Your task to perform on an android device: open app "TextNow: Call + Text Unlimited" (install if not already installed) and enter user name: "stoke@yahoo.com" and password: "prompted" Image 0: 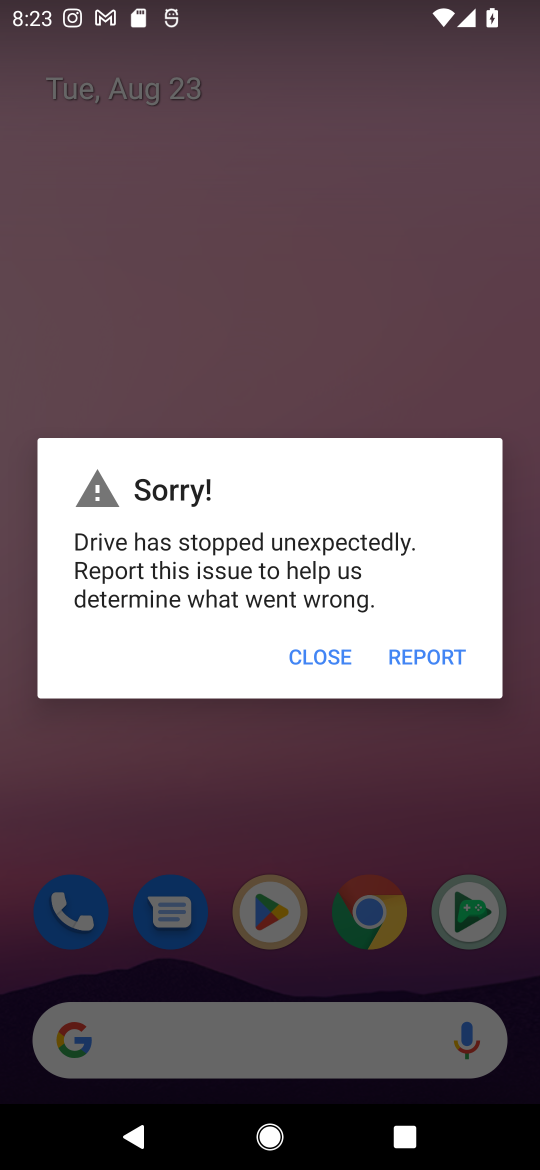
Step 0: press home button
Your task to perform on an android device: open app "TextNow: Call + Text Unlimited" (install if not already installed) and enter user name: "stoke@yahoo.com" and password: "prompted" Image 1: 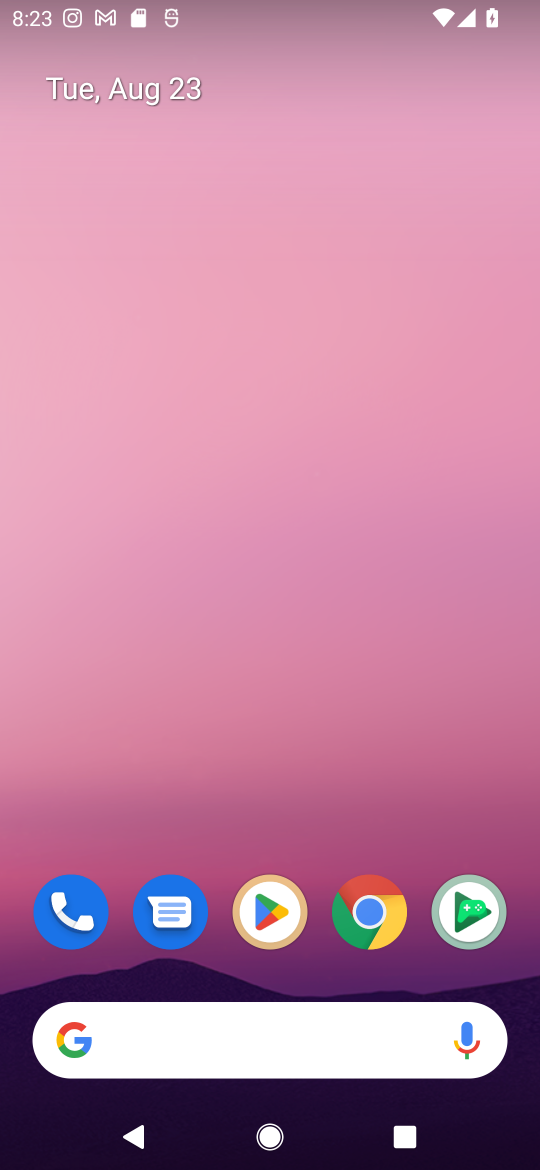
Step 1: click (273, 909)
Your task to perform on an android device: open app "TextNow: Call + Text Unlimited" (install if not already installed) and enter user name: "stoke@yahoo.com" and password: "prompted" Image 2: 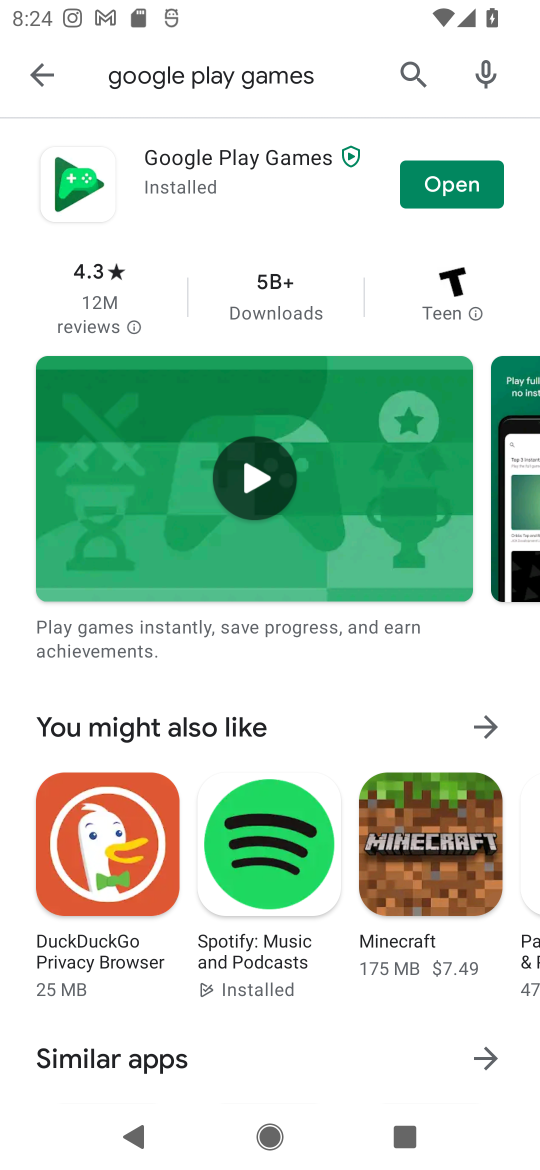
Step 2: click (405, 73)
Your task to perform on an android device: open app "TextNow: Call + Text Unlimited" (install if not already installed) and enter user name: "stoke@yahoo.com" and password: "prompted" Image 3: 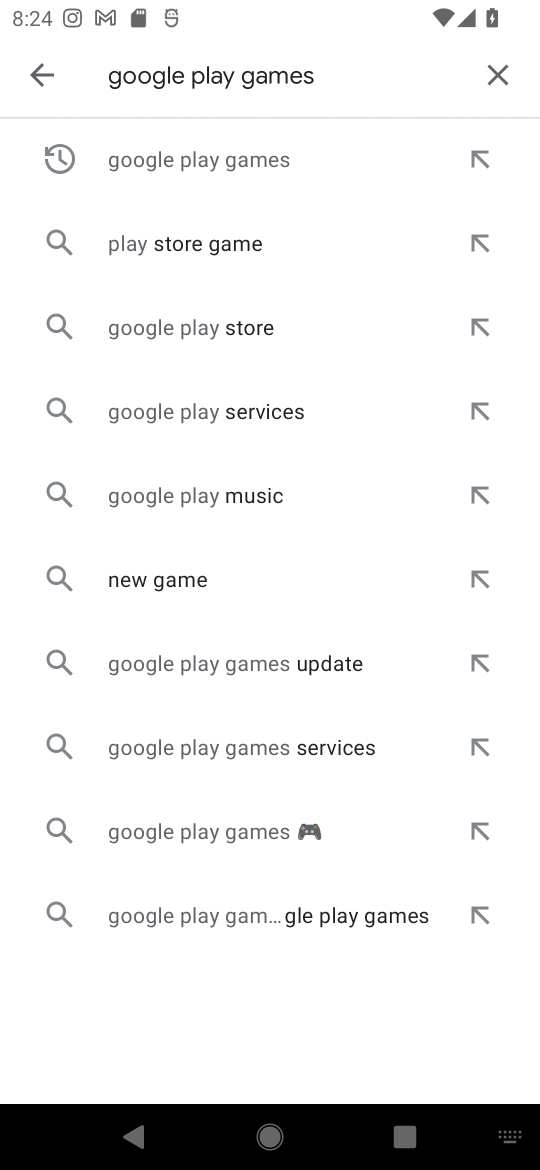
Step 3: click (494, 70)
Your task to perform on an android device: open app "TextNow: Call + Text Unlimited" (install if not already installed) and enter user name: "stoke@yahoo.com" and password: "prompted" Image 4: 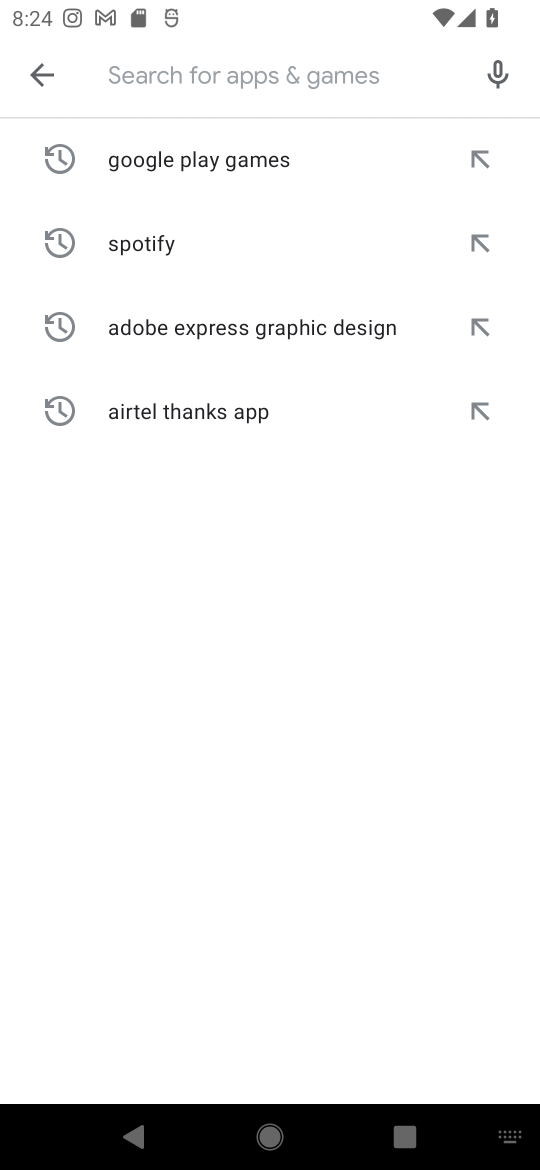
Step 4: type "TextNow: Call + Text Unlimited"
Your task to perform on an android device: open app "TextNow: Call + Text Unlimited" (install if not already installed) and enter user name: "stoke@yahoo.com" and password: "prompted" Image 5: 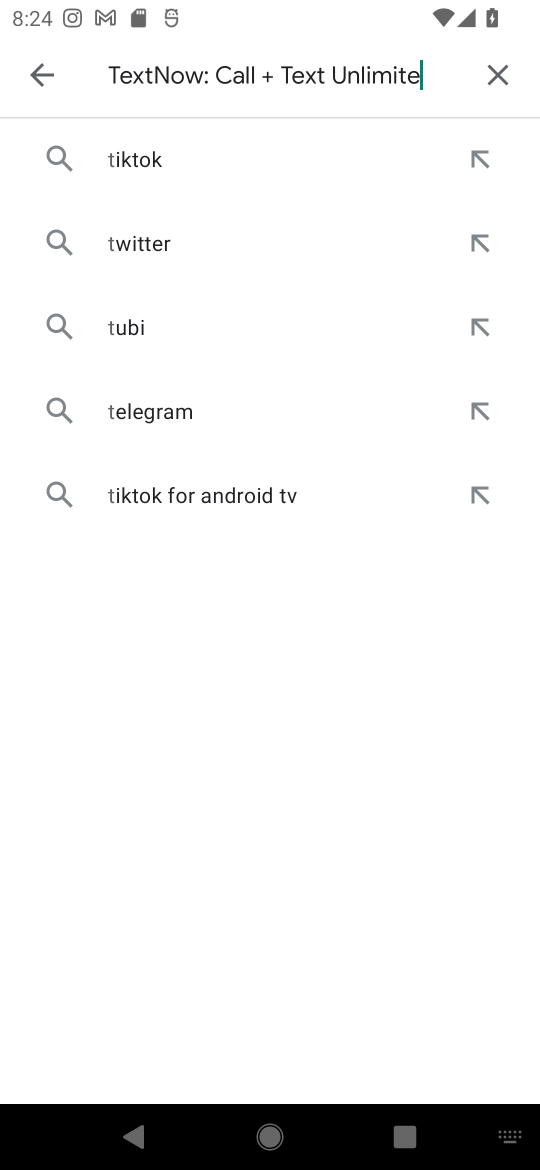
Step 5: type ""
Your task to perform on an android device: open app "TextNow: Call + Text Unlimited" (install if not already installed) and enter user name: "stoke@yahoo.com" and password: "prompted" Image 6: 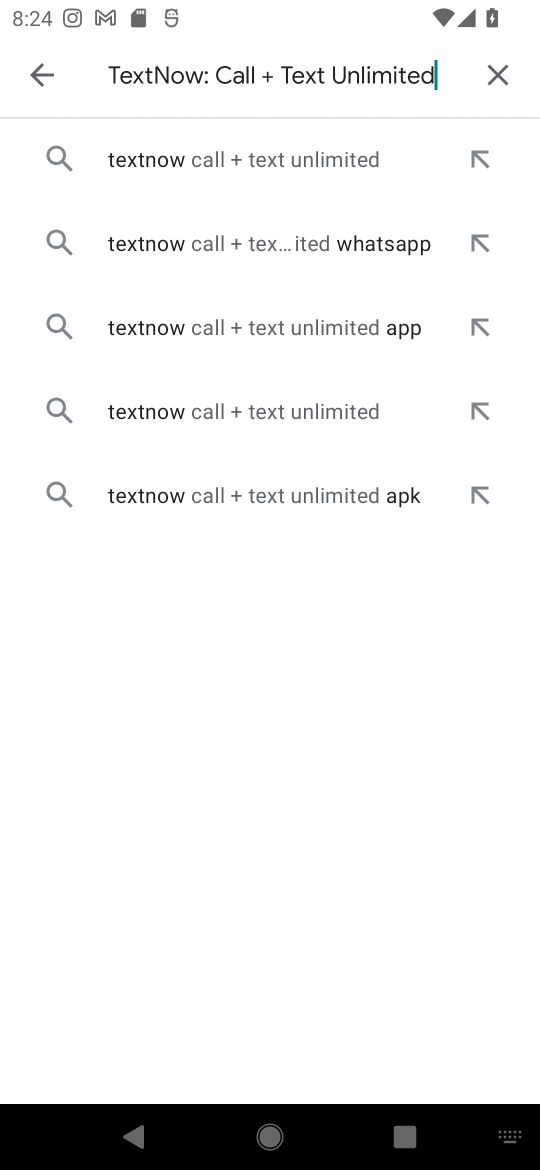
Step 6: click (336, 158)
Your task to perform on an android device: open app "TextNow: Call + Text Unlimited" (install if not already installed) and enter user name: "stoke@yahoo.com" and password: "prompted" Image 7: 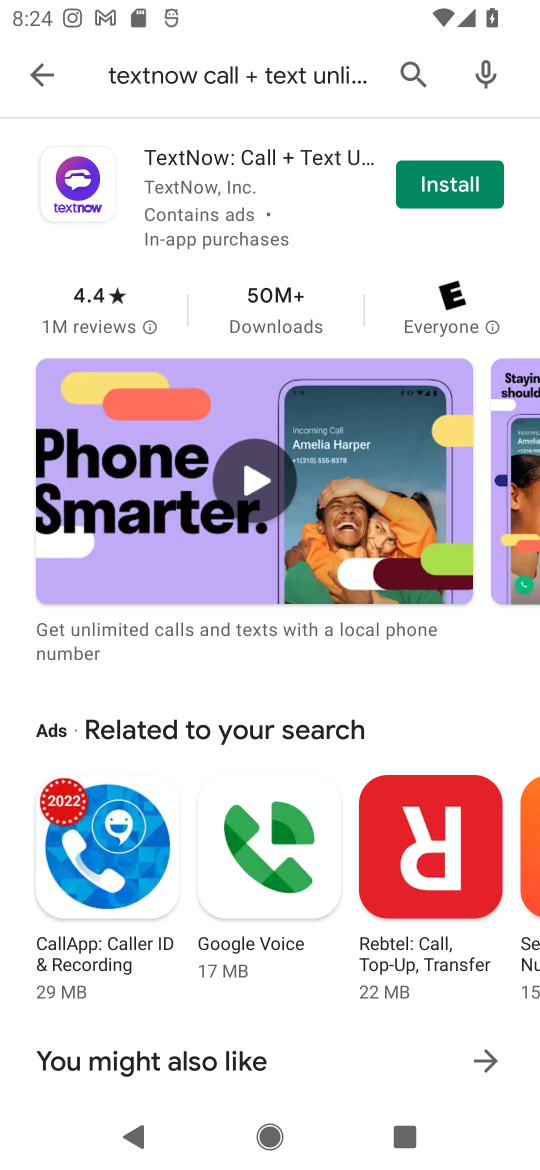
Step 7: click (451, 185)
Your task to perform on an android device: open app "TextNow: Call + Text Unlimited" (install if not already installed) and enter user name: "stoke@yahoo.com" and password: "prompted" Image 8: 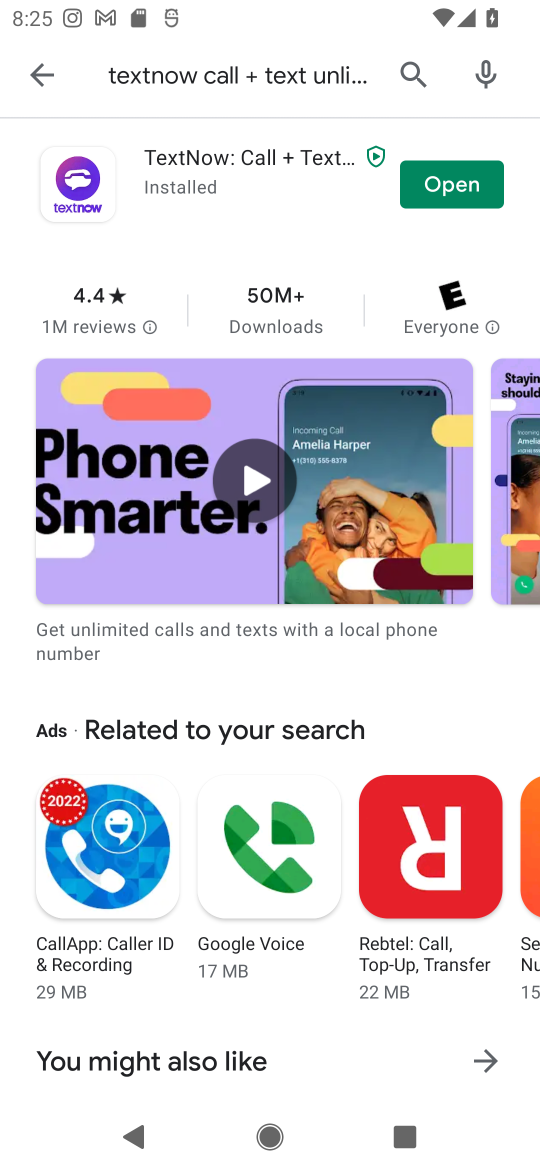
Step 8: click (448, 188)
Your task to perform on an android device: open app "TextNow: Call + Text Unlimited" (install if not already installed) and enter user name: "stoke@yahoo.com" and password: "prompted" Image 9: 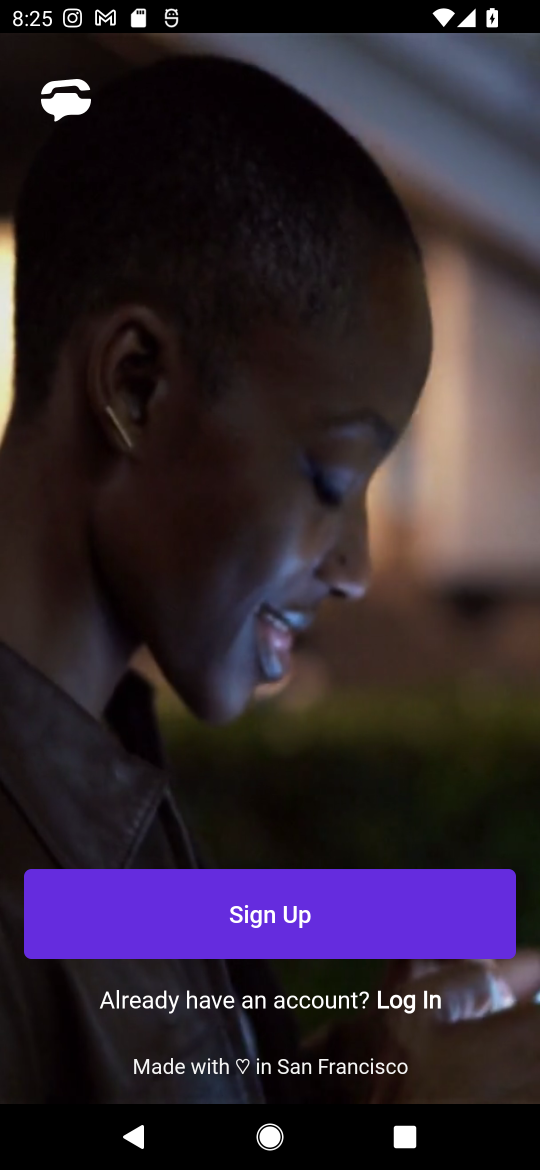
Step 9: click (271, 922)
Your task to perform on an android device: open app "TextNow: Call + Text Unlimited" (install if not already installed) and enter user name: "stoke@yahoo.com" and password: "prompted" Image 10: 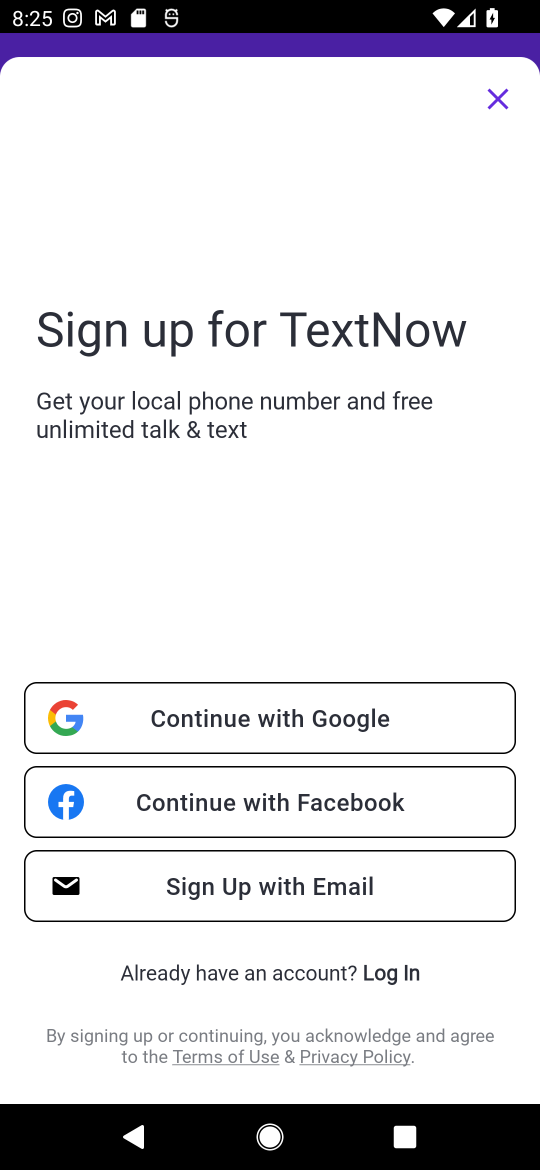
Step 10: click (350, 887)
Your task to perform on an android device: open app "TextNow: Call + Text Unlimited" (install if not already installed) and enter user name: "stoke@yahoo.com" and password: "prompted" Image 11: 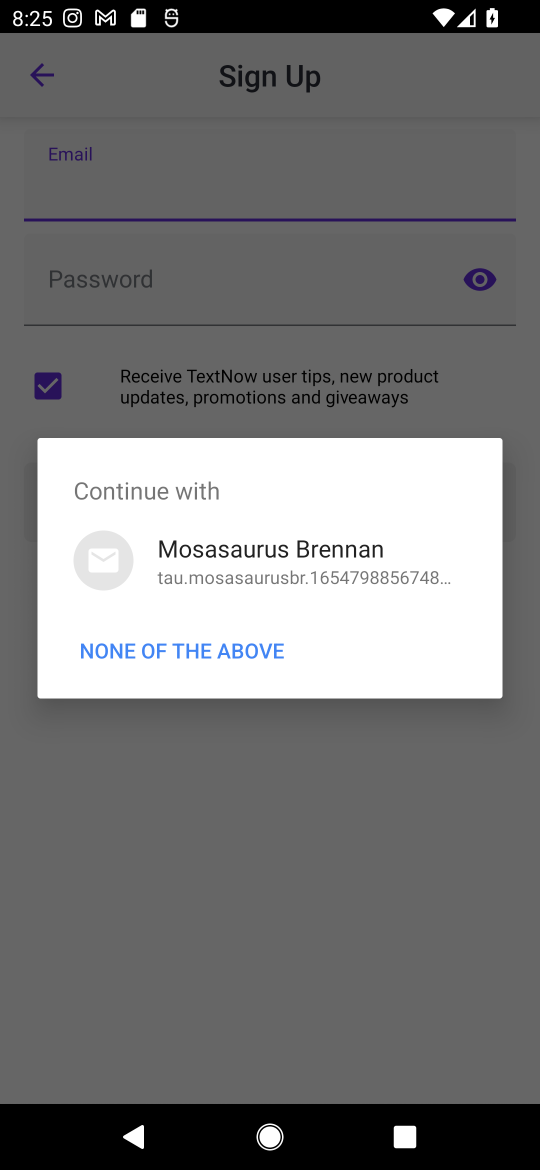
Step 11: click (206, 647)
Your task to perform on an android device: open app "TextNow: Call + Text Unlimited" (install if not already installed) and enter user name: "stoke@yahoo.com" and password: "prompted" Image 12: 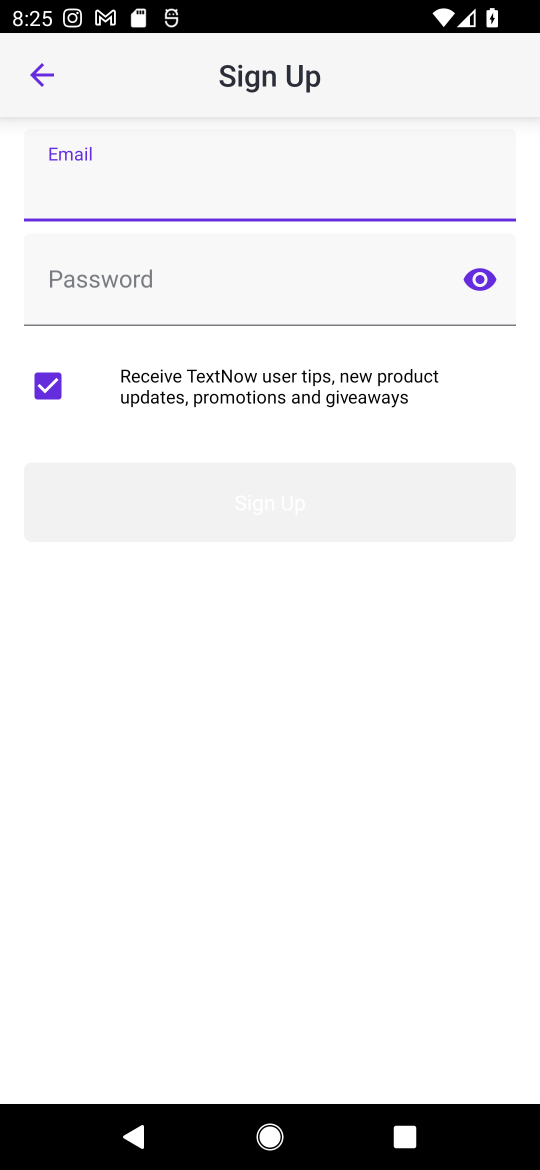
Step 12: type "stoke@yahoo.com"
Your task to perform on an android device: open app "TextNow: Call + Text Unlimited" (install if not already installed) and enter user name: "stoke@yahoo.com" and password: "prompted" Image 13: 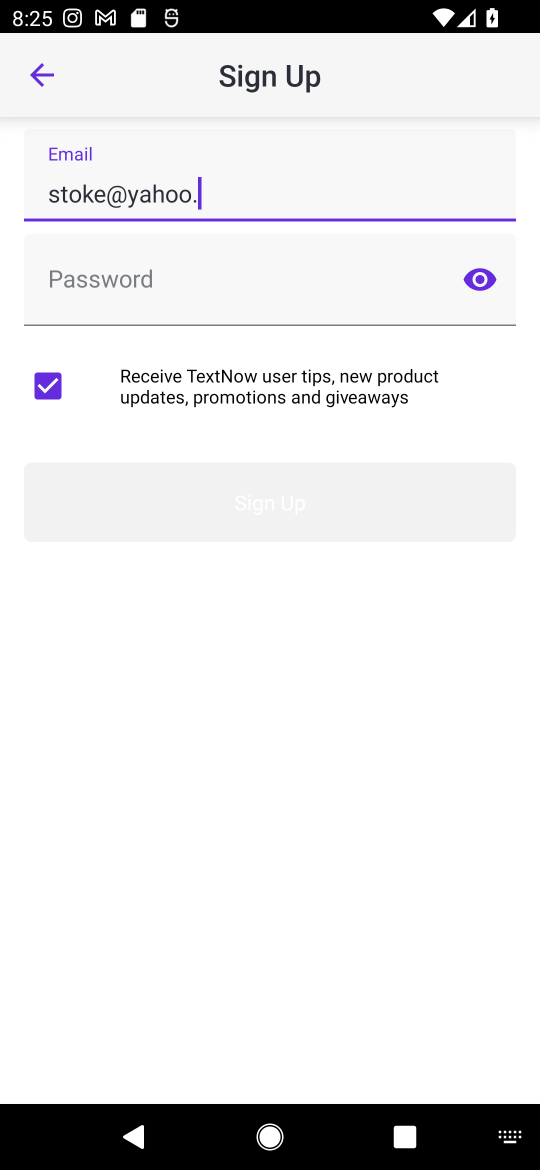
Step 13: type ""
Your task to perform on an android device: open app "TextNow: Call + Text Unlimited" (install if not already installed) and enter user name: "stoke@yahoo.com" and password: "prompted" Image 14: 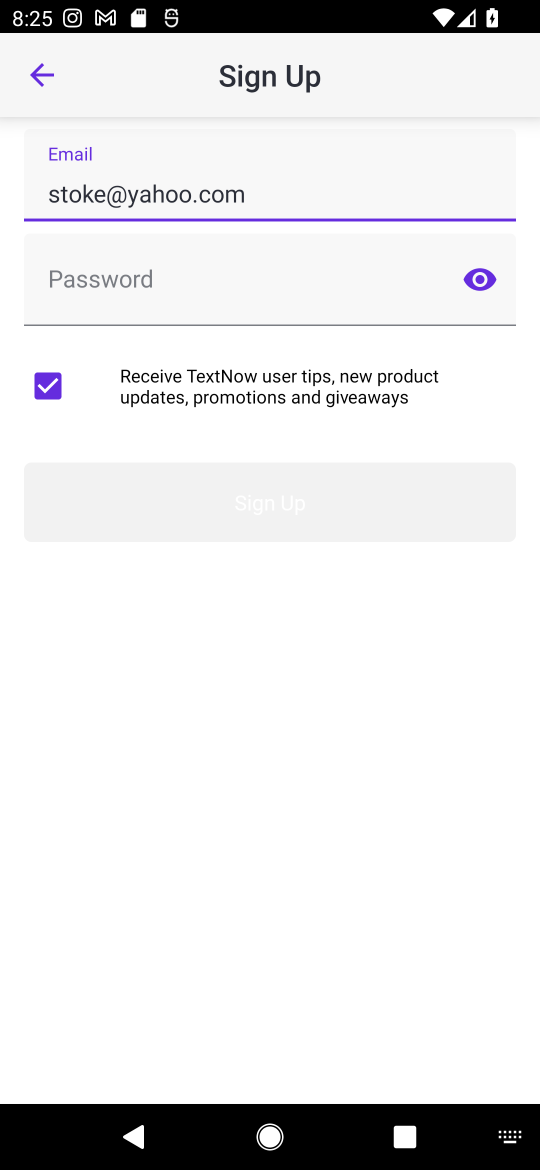
Step 14: click (201, 276)
Your task to perform on an android device: open app "TextNow: Call + Text Unlimited" (install if not already installed) and enter user name: "stoke@yahoo.com" and password: "prompted" Image 15: 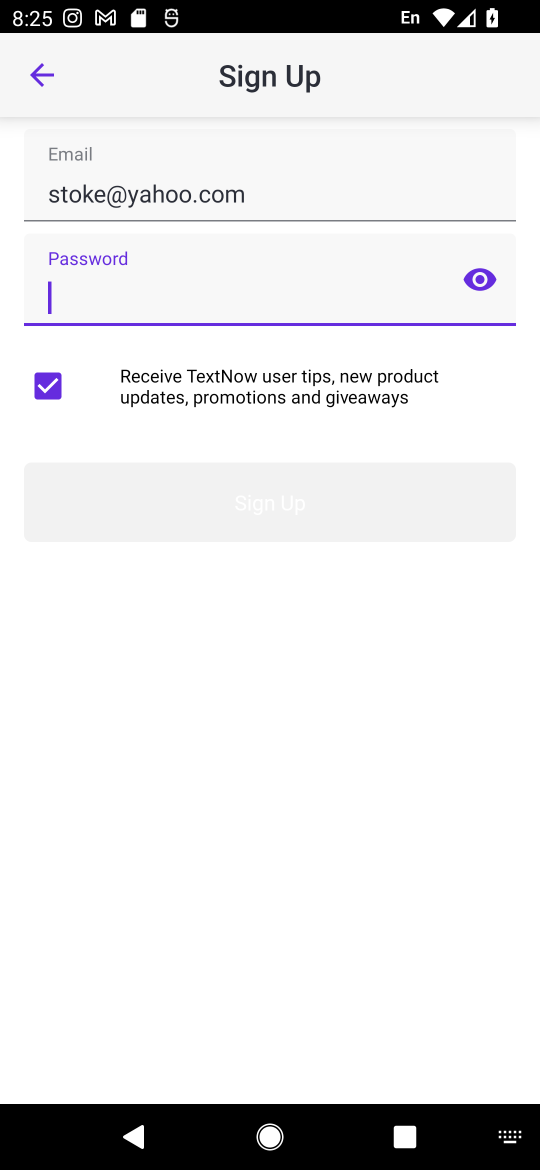
Step 15: type "prompted"
Your task to perform on an android device: open app "TextNow: Call + Text Unlimited" (install if not already installed) and enter user name: "stoke@yahoo.com" and password: "prompted" Image 16: 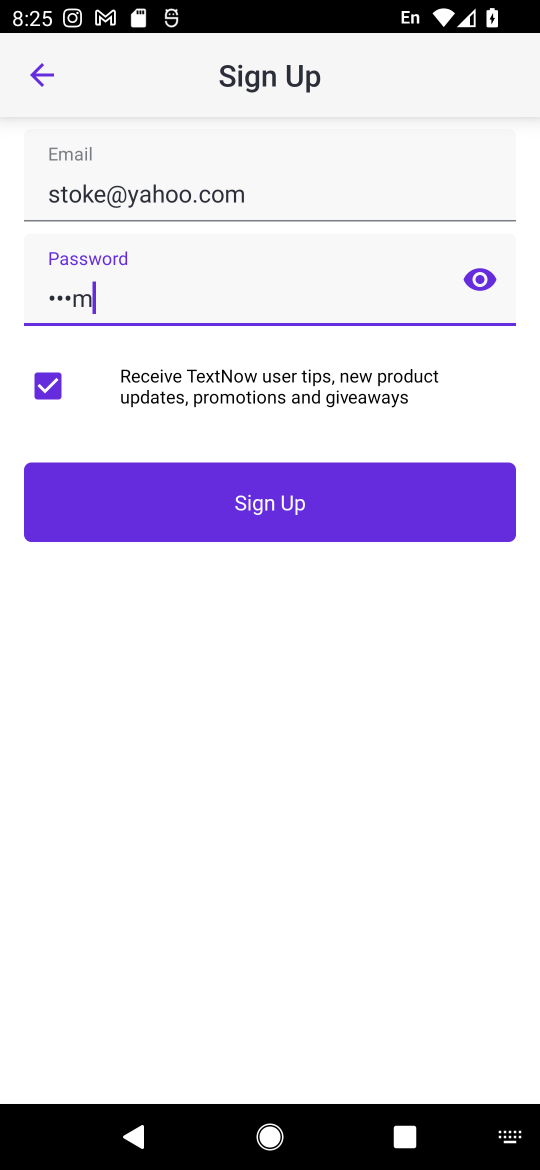
Step 16: type ""
Your task to perform on an android device: open app "TextNow: Call + Text Unlimited" (install if not already installed) and enter user name: "stoke@yahoo.com" and password: "prompted" Image 17: 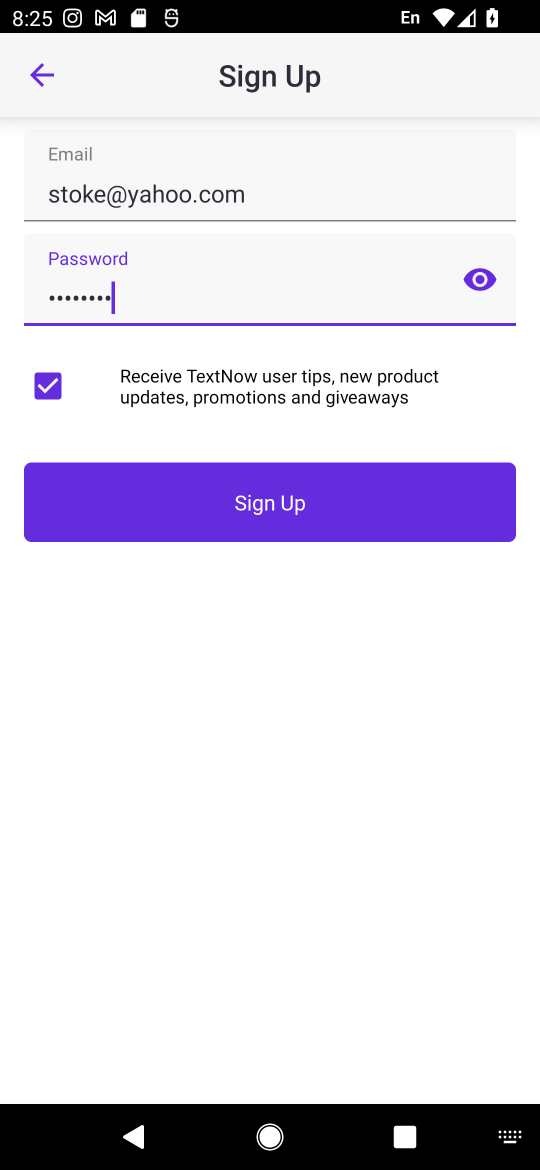
Step 17: task complete